Your task to perform on an android device: check battery use Image 0: 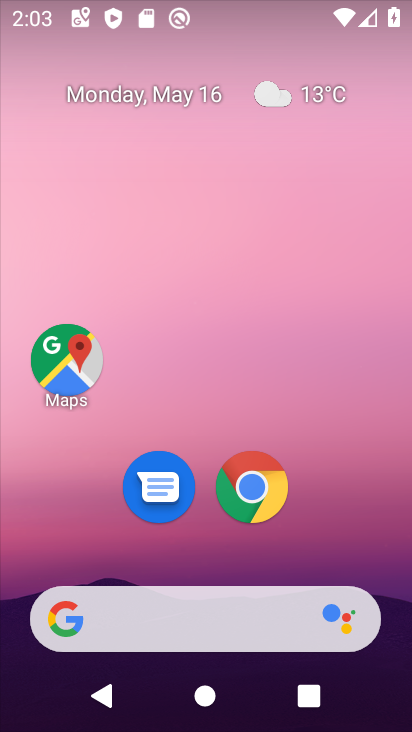
Step 0: drag from (356, 536) to (253, 1)
Your task to perform on an android device: check battery use Image 1: 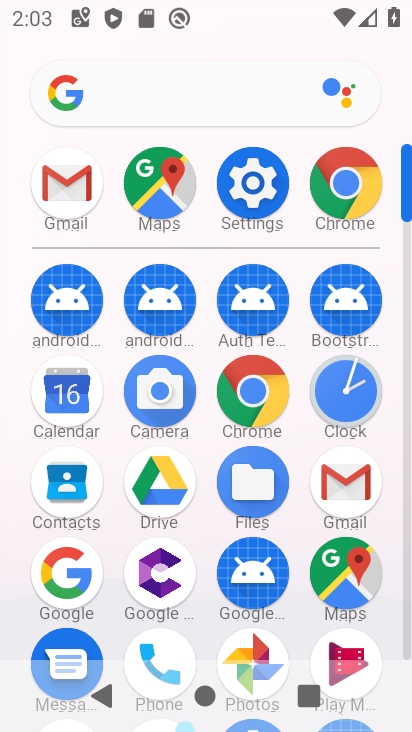
Step 1: drag from (14, 563) to (18, 285)
Your task to perform on an android device: check battery use Image 2: 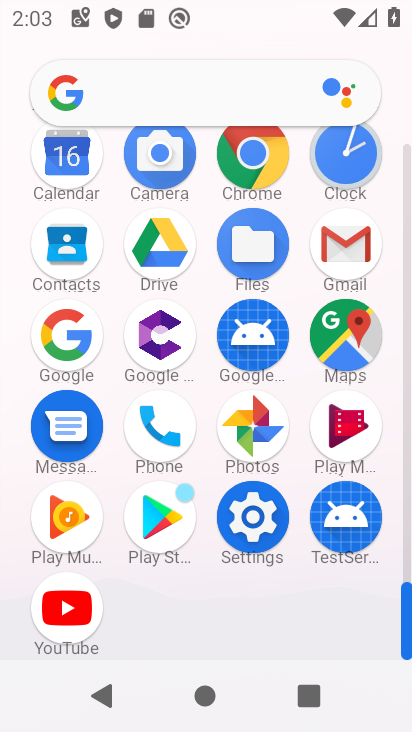
Step 2: click (252, 513)
Your task to perform on an android device: check battery use Image 3: 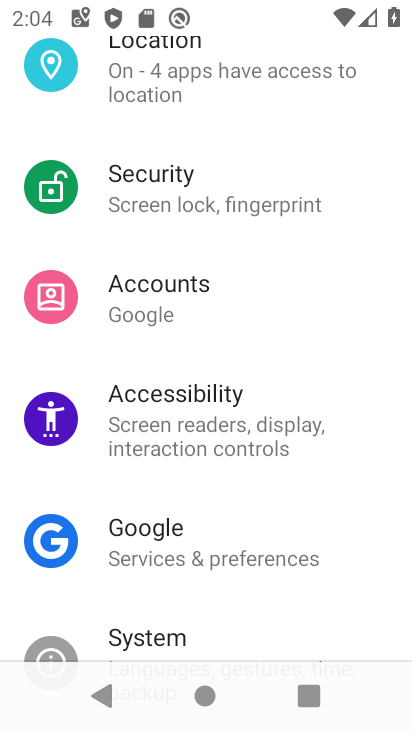
Step 3: drag from (229, 80) to (219, 533)
Your task to perform on an android device: check battery use Image 4: 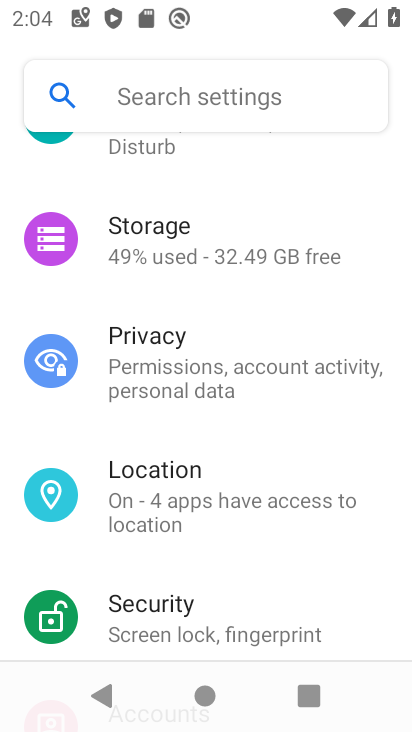
Step 4: drag from (239, 243) to (239, 136)
Your task to perform on an android device: check battery use Image 5: 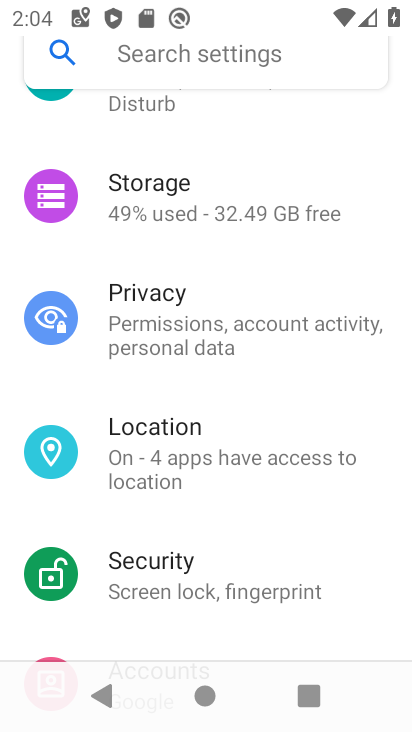
Step 5: drag from (265, 598) to (289, 161)
Your task to perform on an android device: check battery use Image 6: 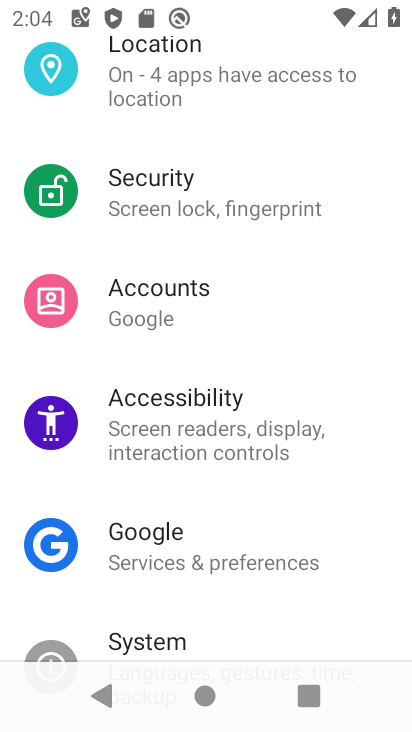
Step 6: drag from (220, 578) to (216, 168)
Your task to perform on an android device: check battery use Image 7: 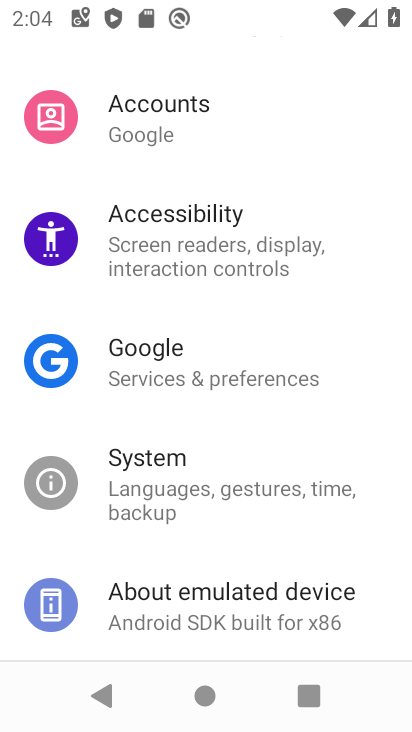
Step 7: drag from (238, 113) to (237, 615)
Your task to perform on an android device: check battery use Image 8: 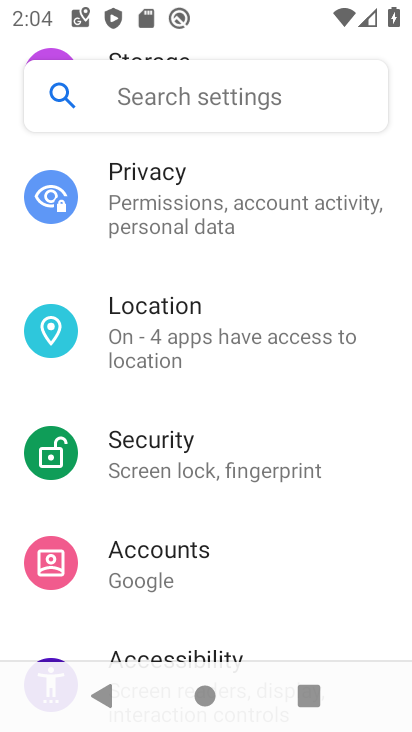
Step 8: drag from (274, 190) to (279, 628)
Your task to perform on an android device: check battery use Image 9: 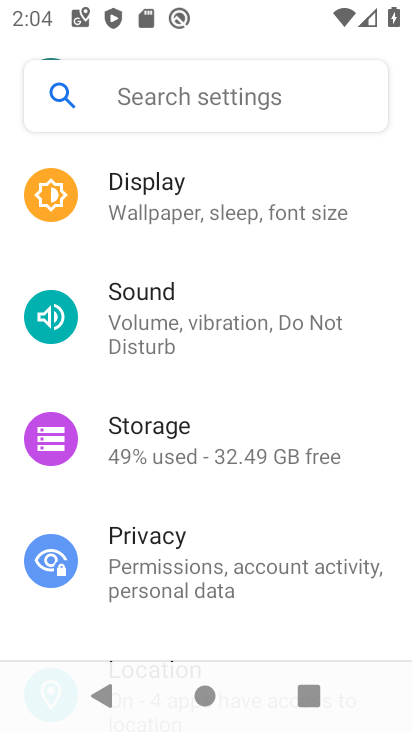
Step 9: drag from (268, 215) to (274, 653)
Your task to perform on an android device: check battery use Image 10: 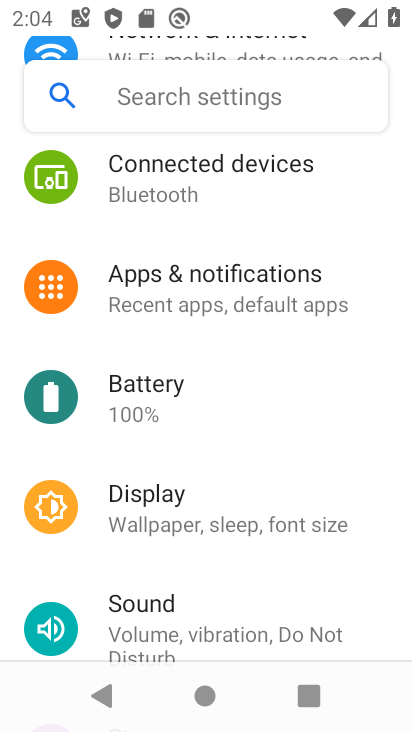
Step 10: click (207, 384)
Your task to perform on an android device: check battery use Image 11: 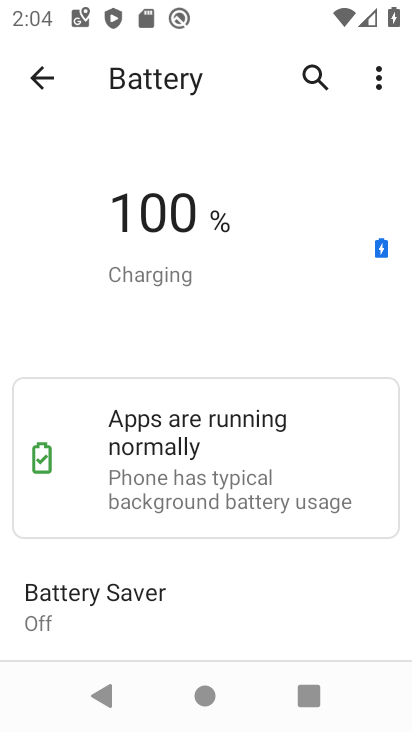
Step 11: task complete